Your task to perform on an android device: clear history in the chrome app Image 0: 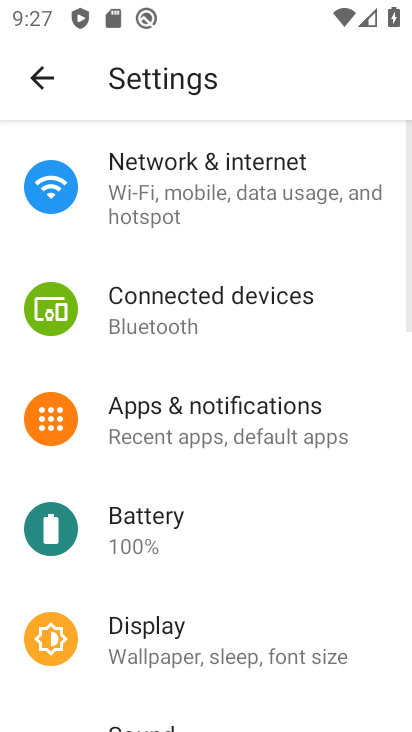
Step 0: press home button
Your task to perform on an android device: clear history in the chrome app Image 1: 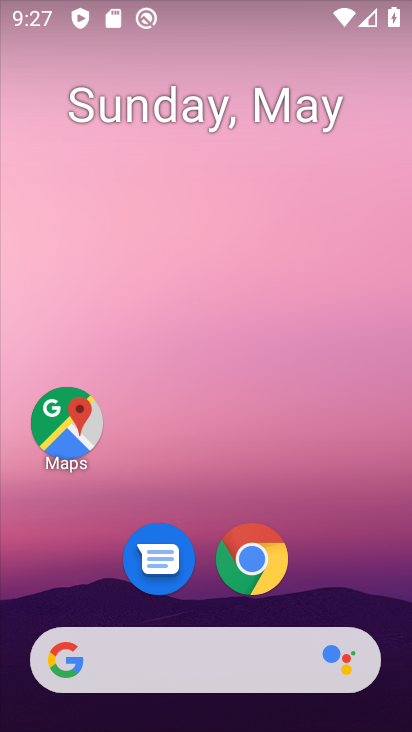
Step 1: click (253, 557)
Your task to perform on an android device: clear history in the chrome app Image 2: 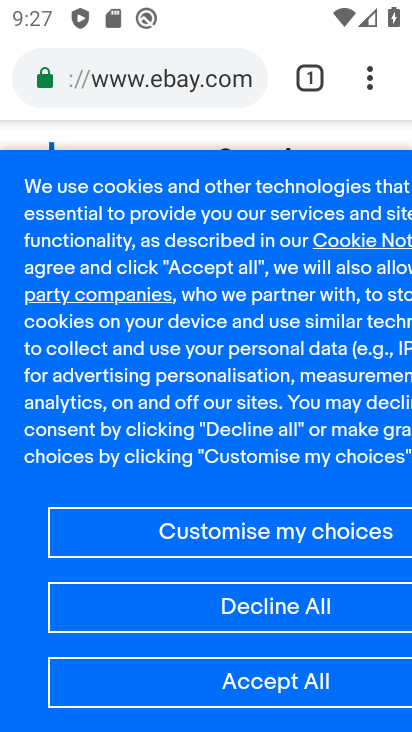
Step 2: drag from (371, 82) to (157, 620)
Your task to perform on an android device: clear history in the chrome app Image 3: 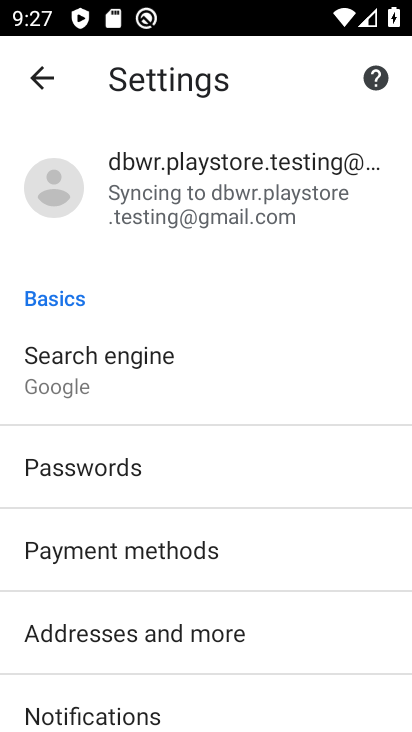
Step 3: drag from (307, 702) to (336, 232)
Your task to perform on an android device: clear history in the chrome app Image 4: 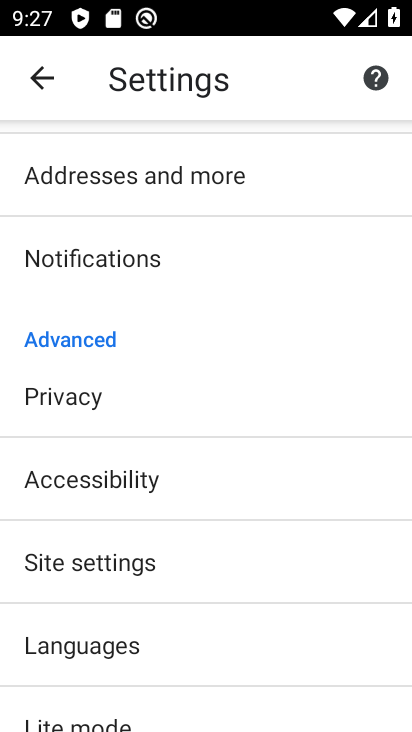
Step 4: drag from (270, 660) to (295, 256)
Your task to perform on an android device: clear history in the chrome app Image 5: 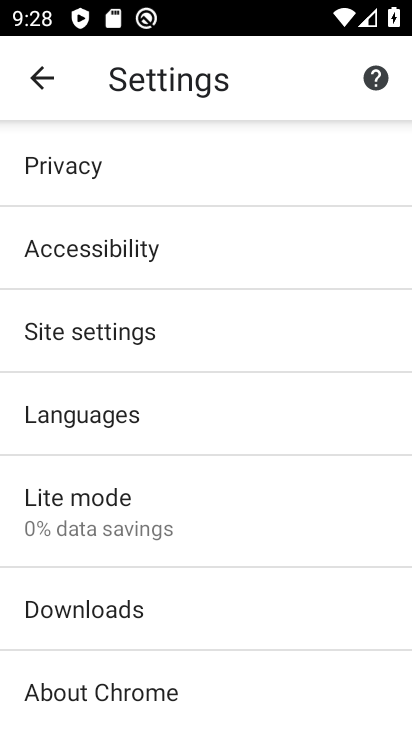
Step 5: drag from (258, 404) to (261, 653)
Your task to perform on an android device: clear history in the chrome app Image 6: 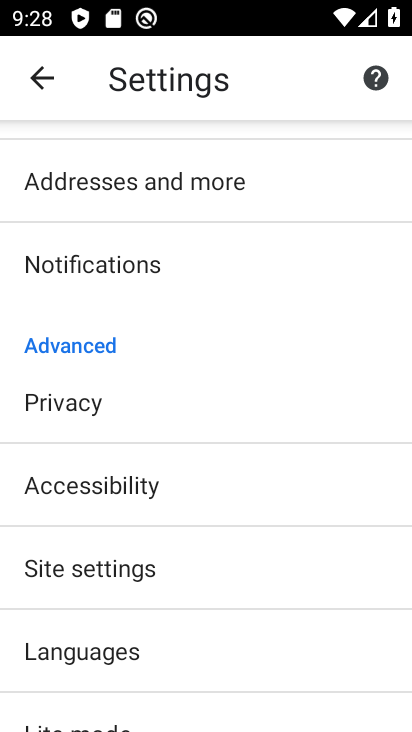
Step 6: drag from (234, 349) to (224, 632)
Your task to perform on an android device: clear history in the chrome app Image 7: 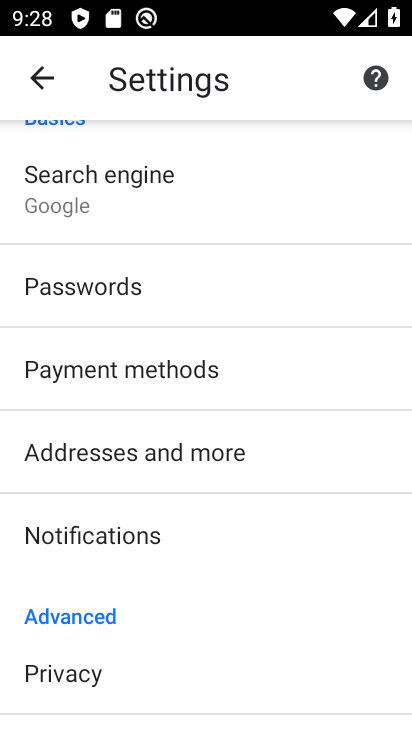
Step 7: click (67, 678)
Your task to perform on an android device: clear history in the chrome app Image 8: 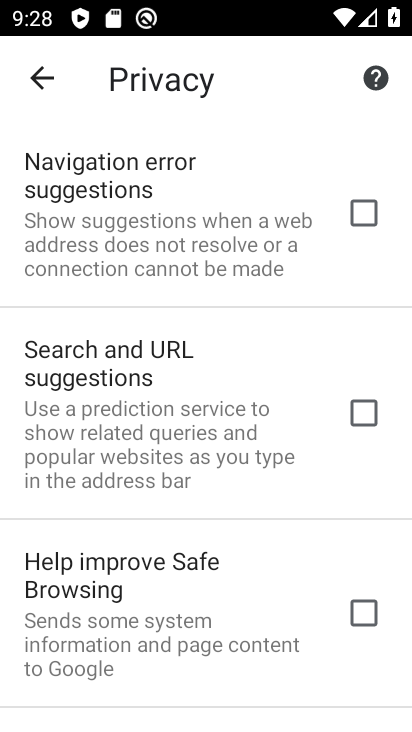
Step 8: drag from (331, 684) to (404, 7)
Your task to perform on an android device: clear history in the chrome app Image 9: 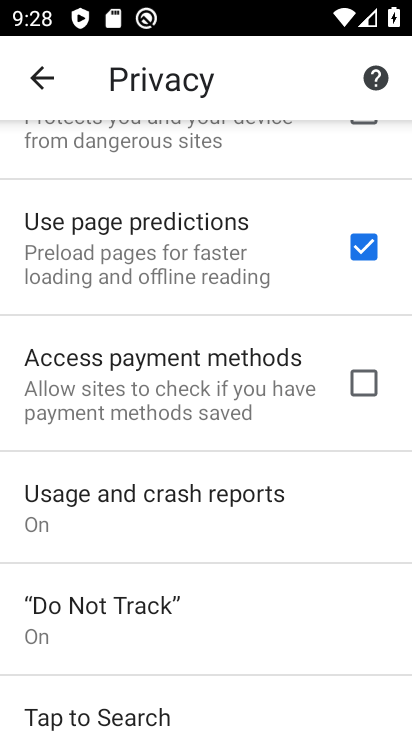
Step 9: drag from (338, 641) to (294, 20)
Your task to perform on an android device: clear history in the chrome app Image 10: 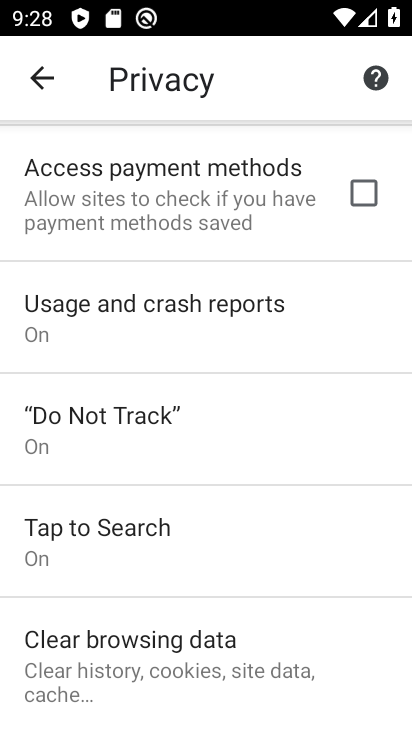
Step 10: click (149, 660)
Your task to perform on an android device: clear history in the chrome app Image 11: 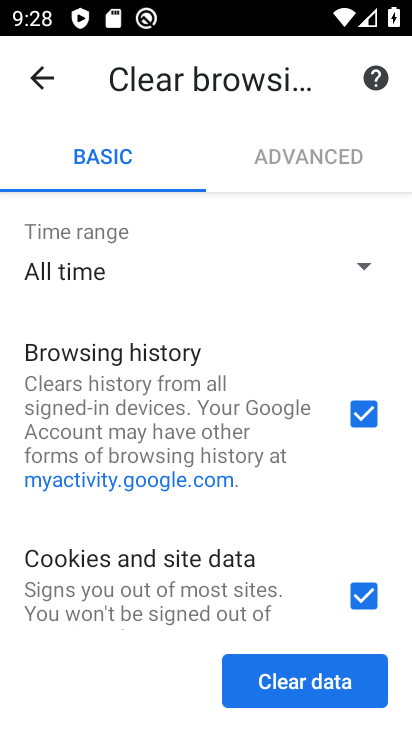
Step 11: click (364, 597)
Your task to perform on an android device: clear history in the chrome app Image 12: 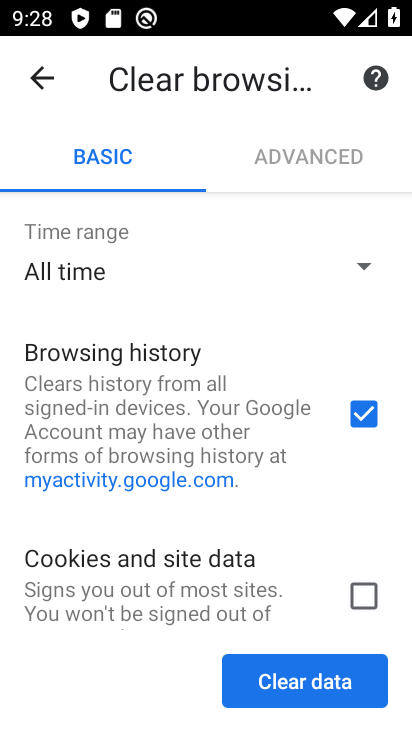
Step 12: click (282, 688)
Your task to perform on an android device: clear history in the chrome app Image 13: 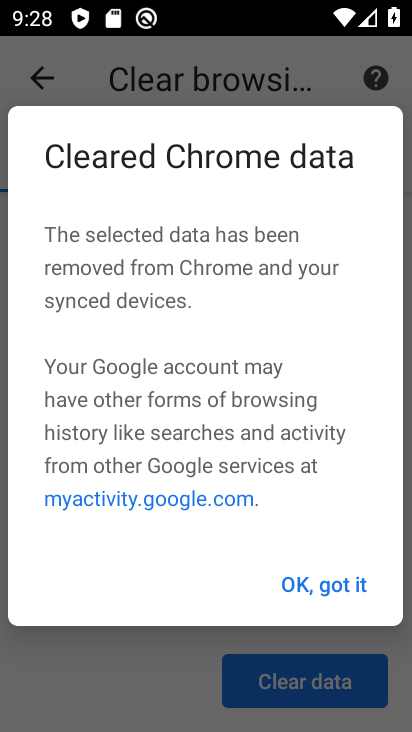
Step 13: click (323, 589)
Your task to perform on an android device: clear history in the chrome app Image 14: 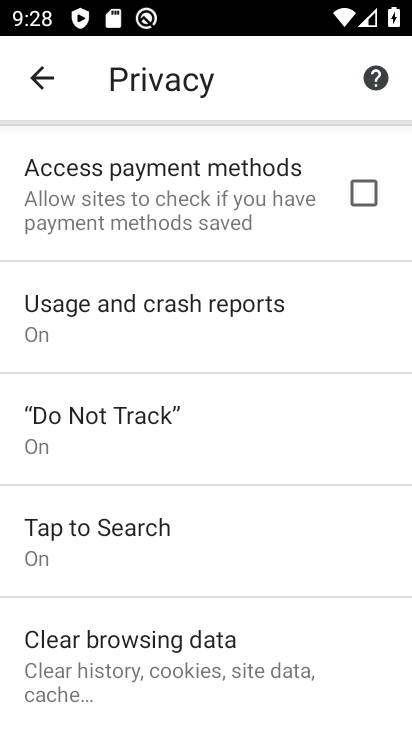
Step 14: task complete